Your task to perform on an android device: turn on sleep mode Image 0: 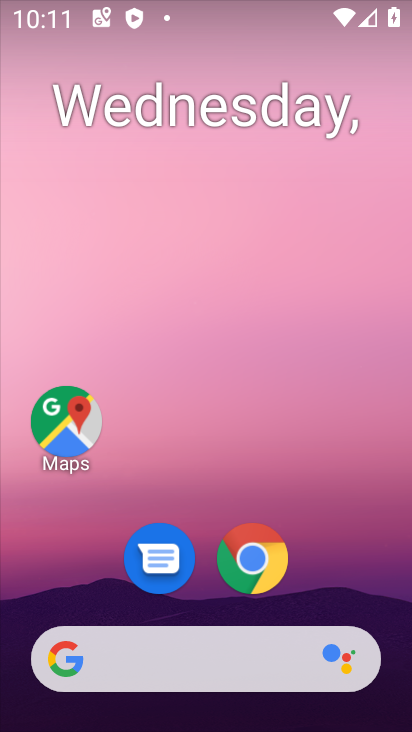
Step 0: drag from (81, 518) to (367, 125)
Your task to perform on an android device: turn on sleep mode Image 1: 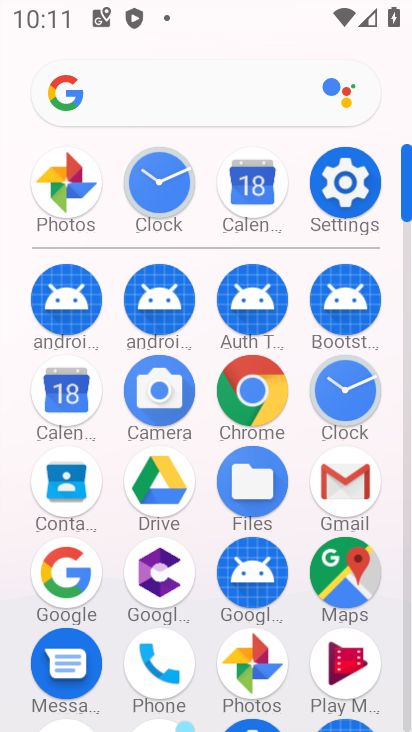
Step 1: click (340, 171)
Your task to perform on an android device: turn on sleep mode Image 2: 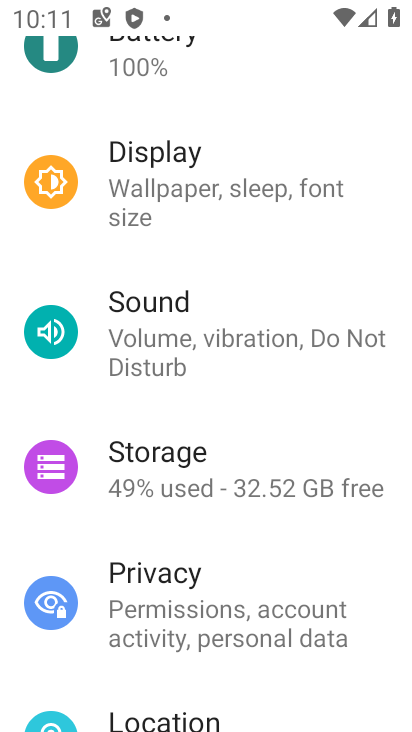
Step 2: click (226, 202)
Your task to perform on an android device: turn on sleep mode Image 3: 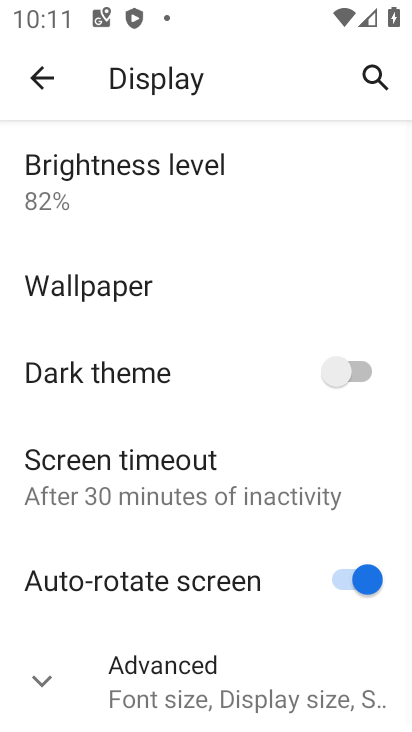
Step 3: task complete